Your task to perform on an android device: Open Google Chrome Image 0: 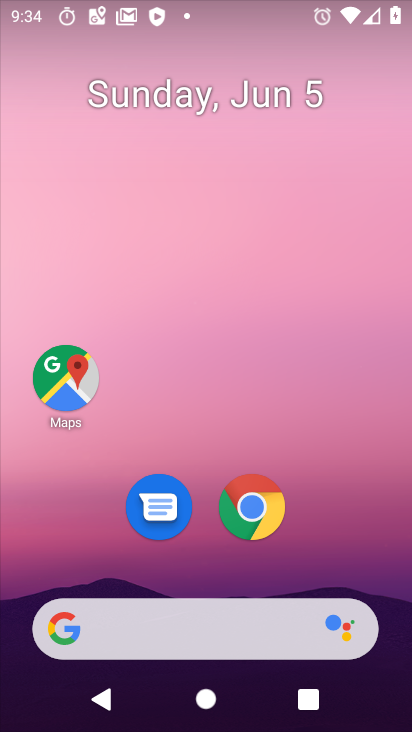
Step 0: drag from (242, 627) to (208, 187)
Your task to perform on an android device: Open Google Chrome Image 1: 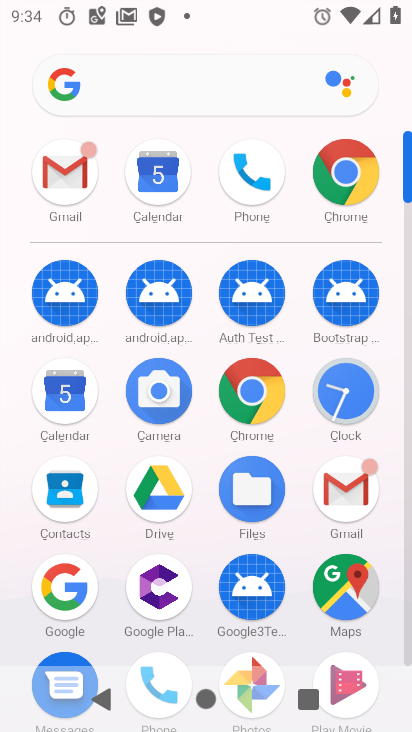
Step 1: click (353, 156)
Your task to perform on an android device: Open Google Chrome Image 2: 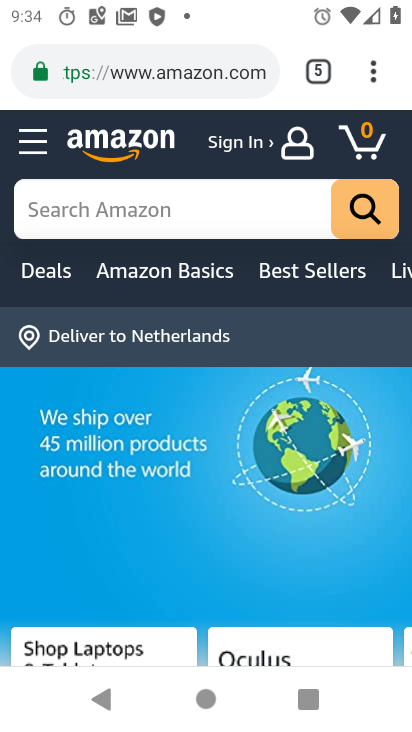
Step 2: click (310, 75)
Your task to perform on an android device: Open Google Chrome Image 3: 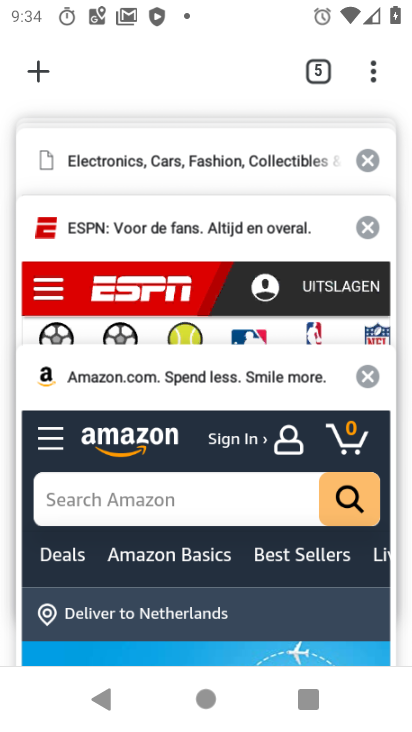
Step 3: click (30, 73)
Your task to perform on an android device: Open Google Chrome Image 4: 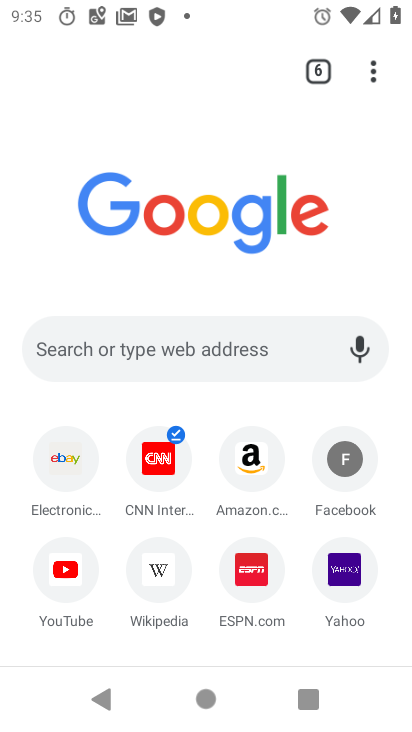
Step 4: task complete